Your task to perform on an android device: Is it going to rain this weekend? Image 0: 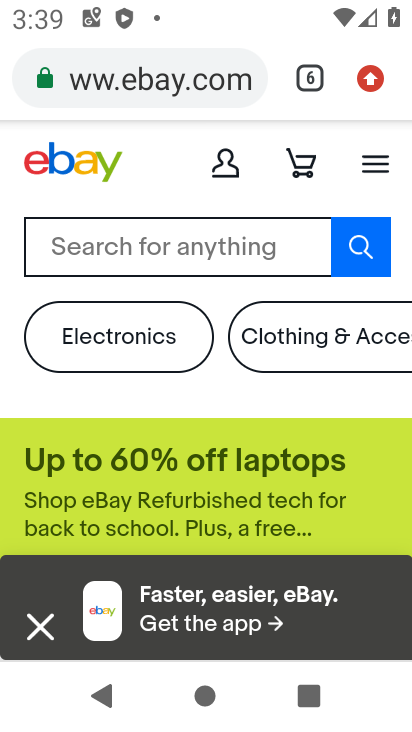
Step 0: press back button
Your task to perform on an android device: Is it going to rain this weekend? Image 1: 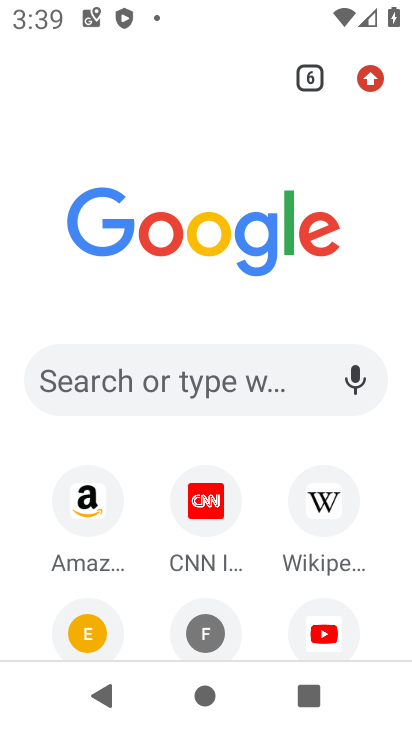
Step 1: press back button
Your task to perform on an android device: Is it going to rain this weekend? Image 2: 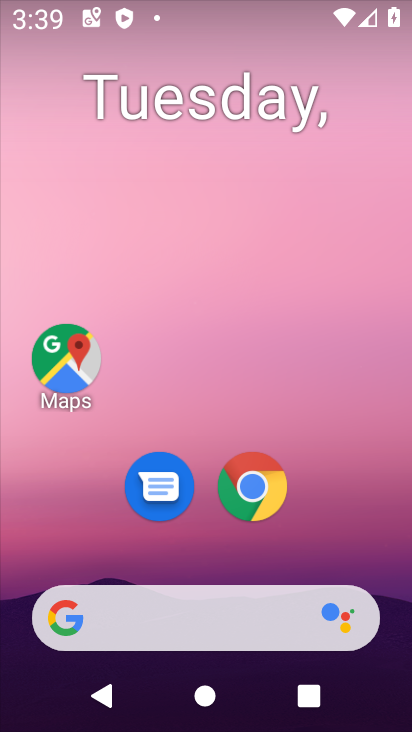
Step 2: click (150, 618)
Your task to perform on an android device: Is it going to rain this weekend? Image 3: 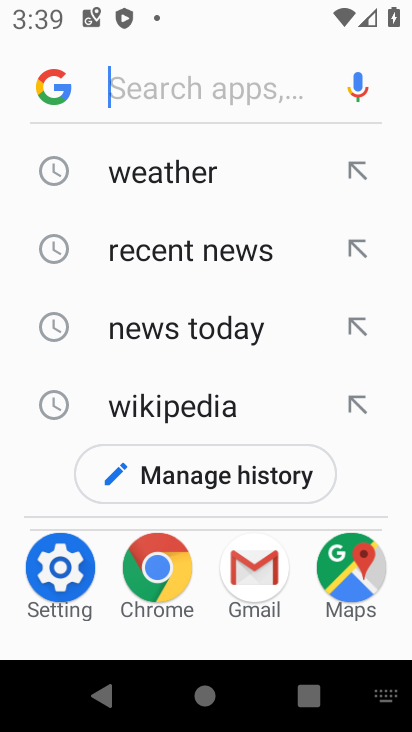
Step 3: click (160, 175)
Your task to perform on an android device: Is it going to rain this weekend? Image 4: 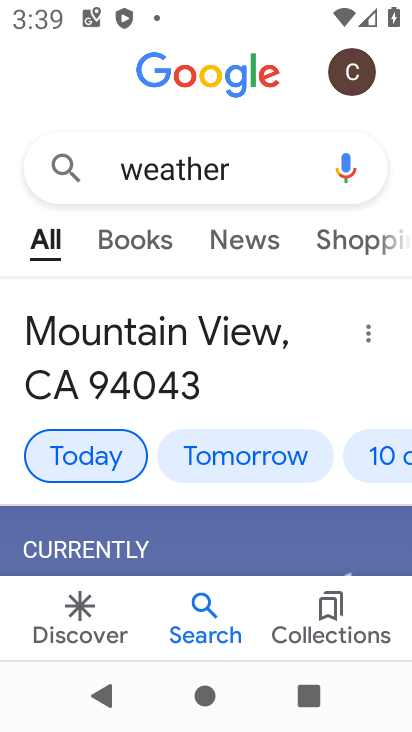
Step 4: click (381, 446)
Your task to perform on an android device: Is it going to rain this weekend? Image 5: 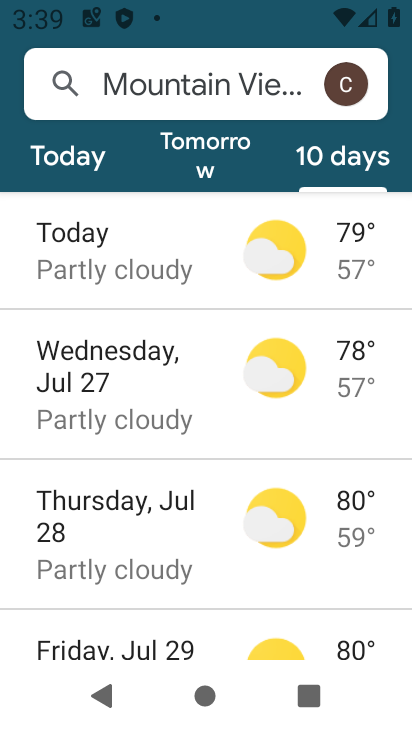
Step 5: task complete